Your task to perform on an android device: Open Yahoo.com Image 0: 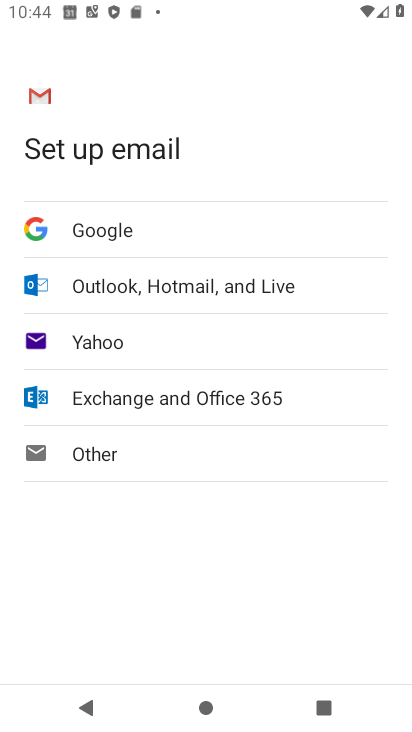
Step 0: press home button
Your task to perform on an android device: Open Yahoo.com Image 1: 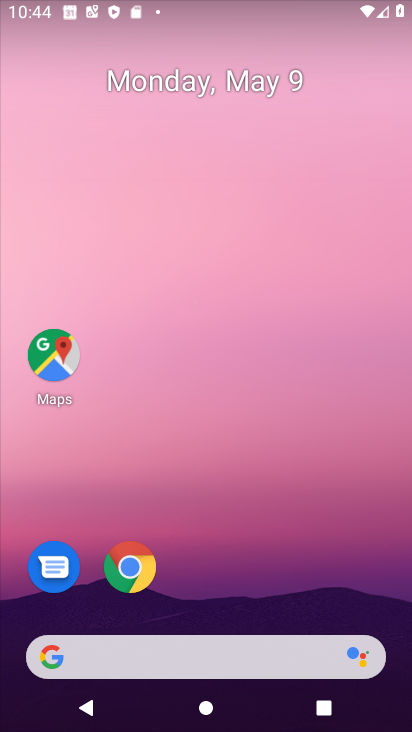
Step 1: click (136, 558)
Your task to perform on an android device: Open Yahoo.com Image 2: 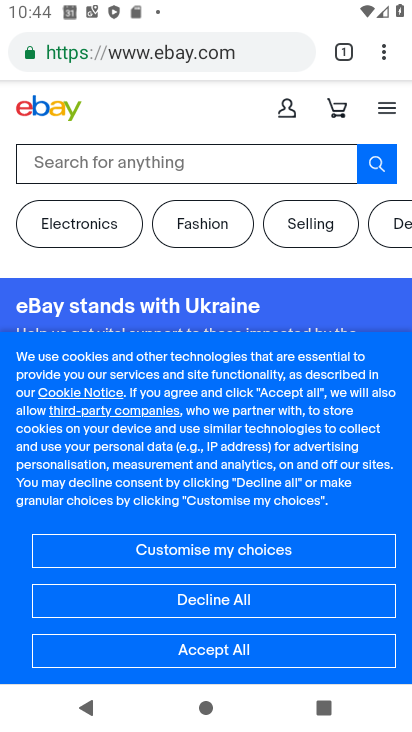
Step 2: click (209, 51)
Your task to perform on an android device: Open Yahoo.com Image 3: 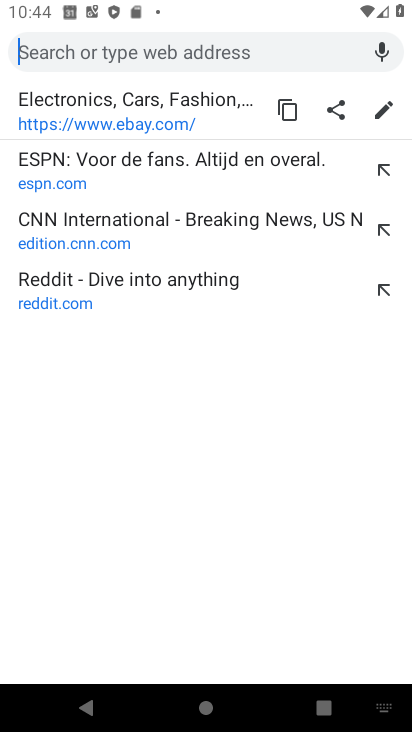
Step 3: type "yahoo.com"
Your task to perform on an android device: Open Yahoo.com Image 4: 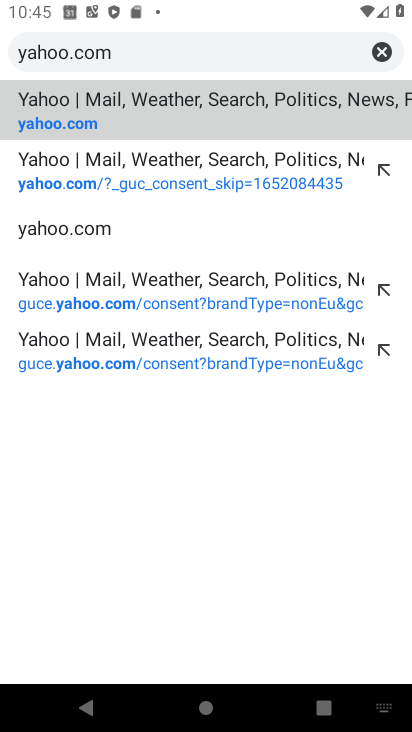
Step 4: click (125, 113)
Your task to perform on an android device: Open Yahoo.com Image 5: 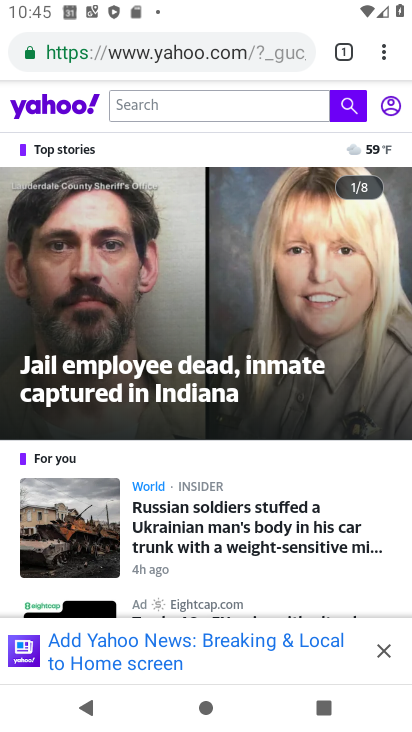
Step 5: task complete